Your task to perform on an android device: turn on bluetooth scan Image 0: 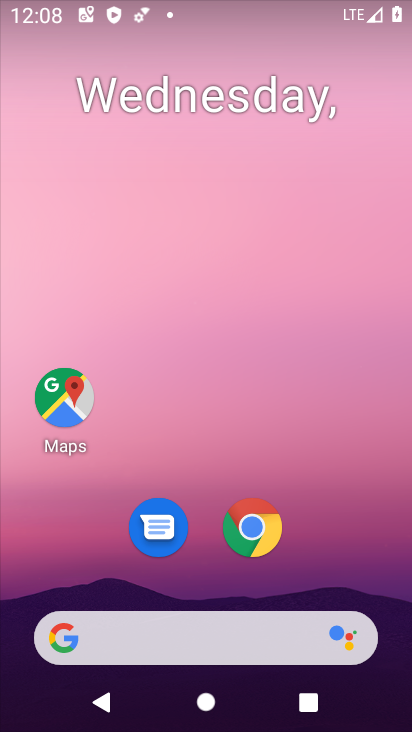
Step 0: drag from (247, 441) to (201, 16)
Your task to perform on an android device: turn on bluetooth scan Image 1: 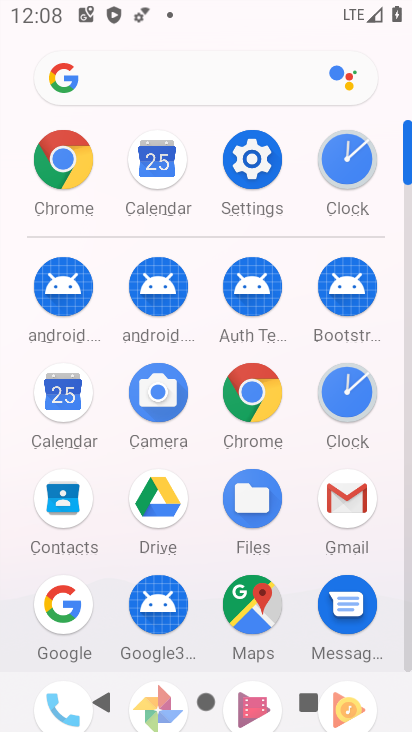
Step 1: click (235, 173)
Your task to perform on an android device: turn on bluetooth scan Image 2: 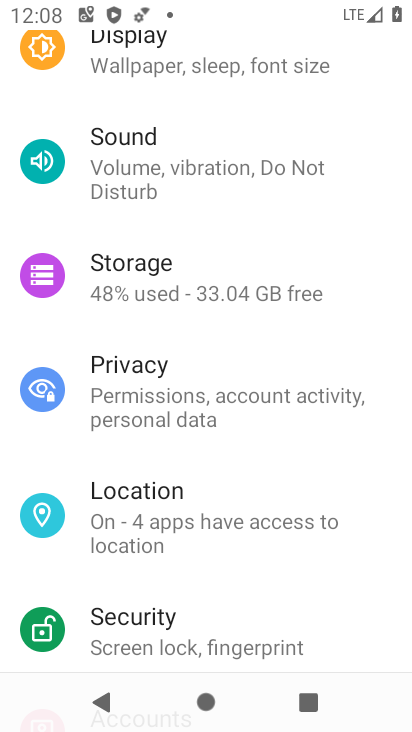
Step 2: click (235, 513)
Your task to perform on an android device: turn on bluetooth scan Image 3: 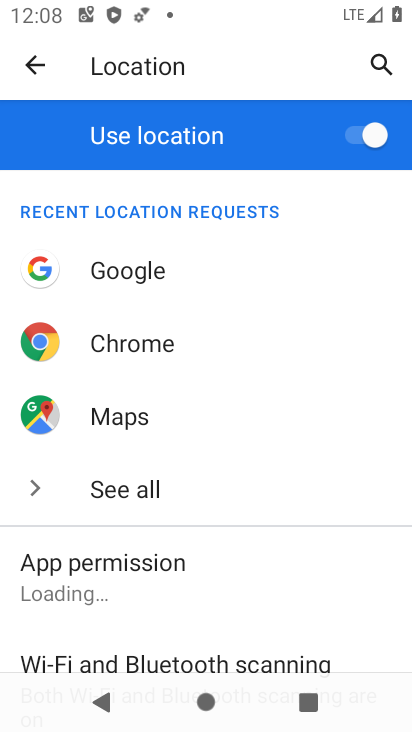
Step 3: drag from (339, 623) to (271, 64)
Your task to perform on an android device: turn on bluetooth scan Image 4: 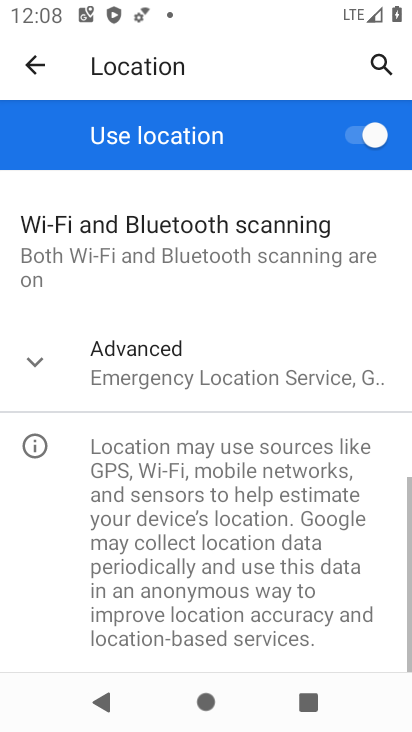
Step 4: click (271, 259)
Your task to perform on an android device: turn on bluetooth scan Image 5: 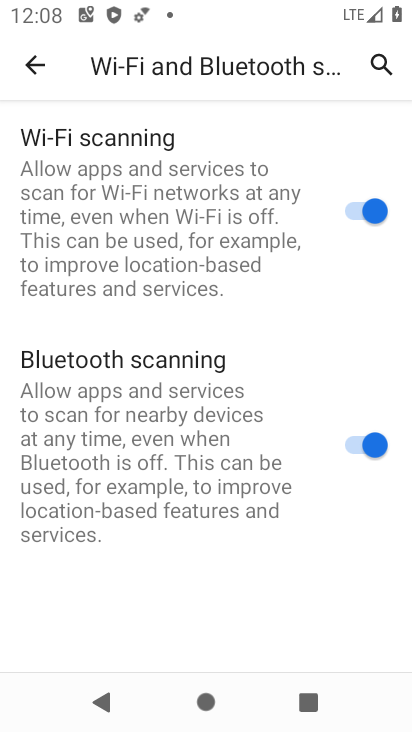
Step 5: task complete